Your task to perform on an android device: Go to location settings Image 0: 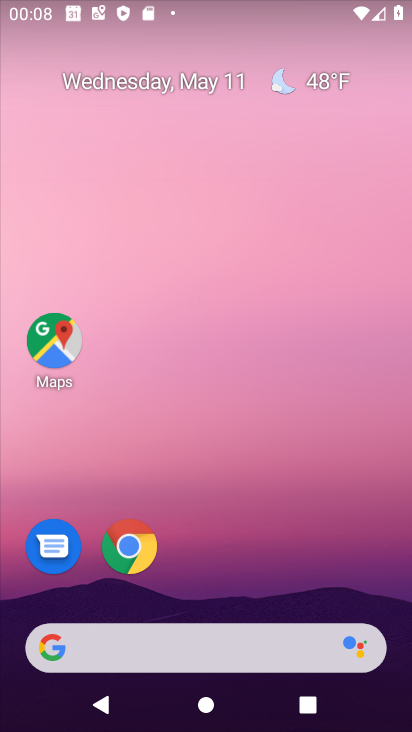
Step 0: drag from (213, 587) to (215, 215)
Your task to perform on an android device: Go to location settings Image 1: 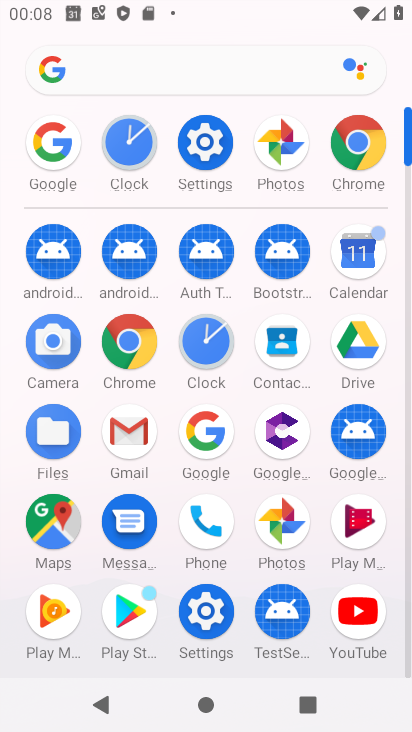
Step 1: click (216, 150)
Your task to perform on an android device: Go to location settings Image 2: 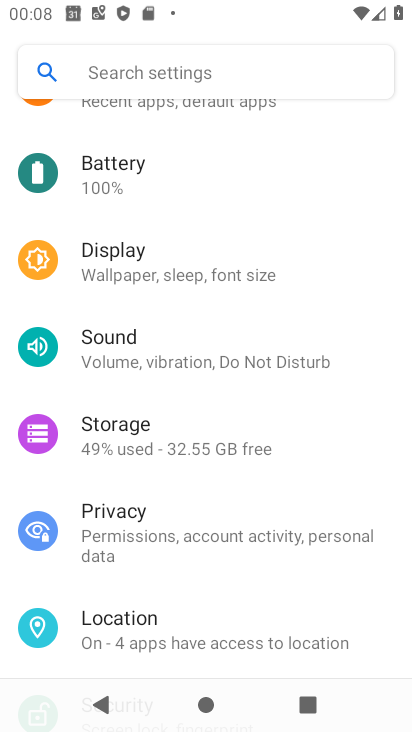
Step 2: click (144, 612)
Your task to perform on an android device: Go to location settings Image 3: 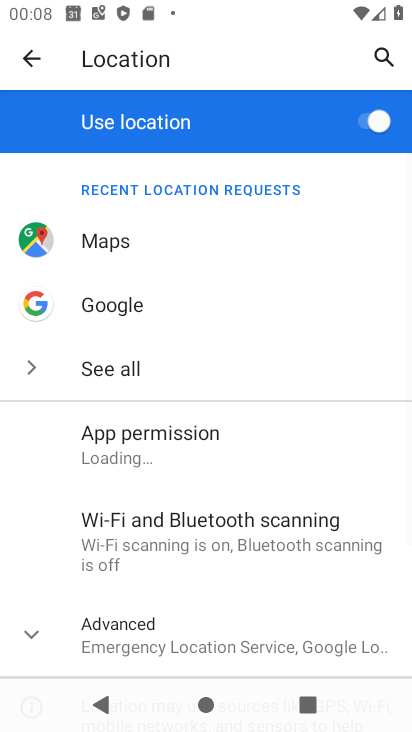
Step 3: task complete